Your task to perform on an android device: Open location settings Image 0: 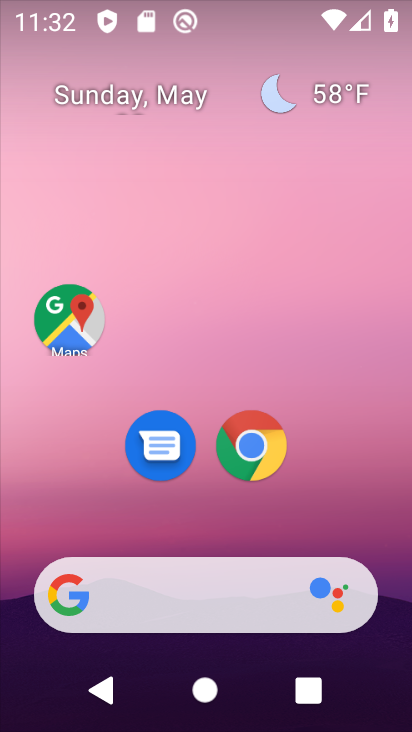
Step 0: drag from (218, 536) to (230, 12)
Your task to perform on an android device: Open location settings Image 1: 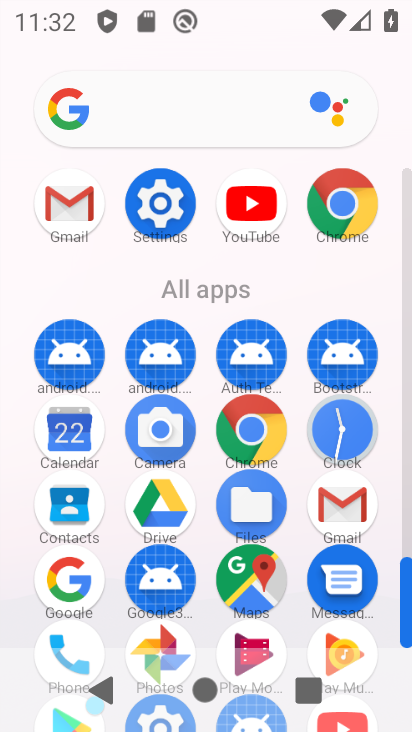
Step 1: click (161, 192)
Your task to perform on an android device: Open location settings Image 2: 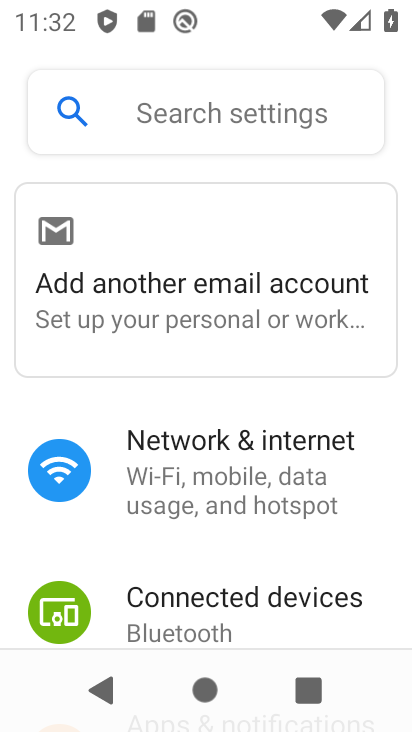
Step 2: drag from (247, 626) to (271, 124)
Your task to perform on an android device: Open location settings Image 3: 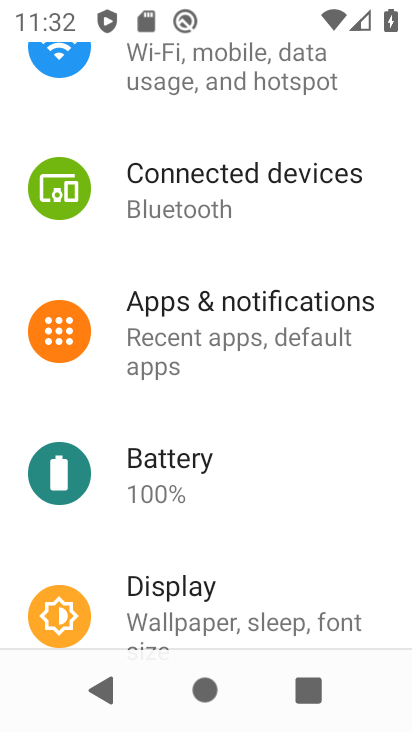
Step 3: drag from (241, 616) to (255, 87)
Your task to perform on an android device: Open location settings Image 4: 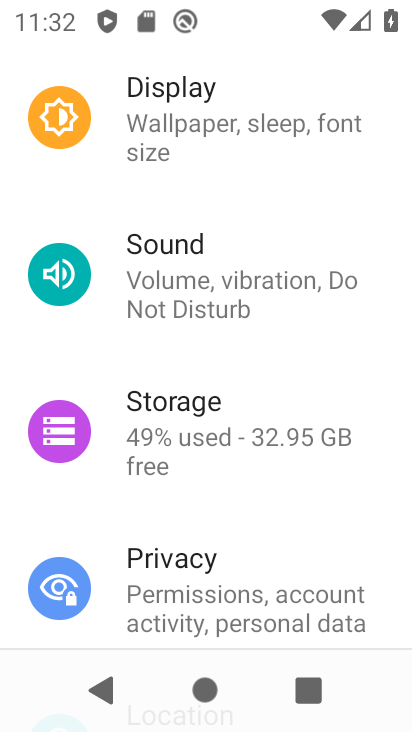
Step 4: drag from (219, 579) to (222, 164)
Your task to perform on an android device: Open location settings Image 5: 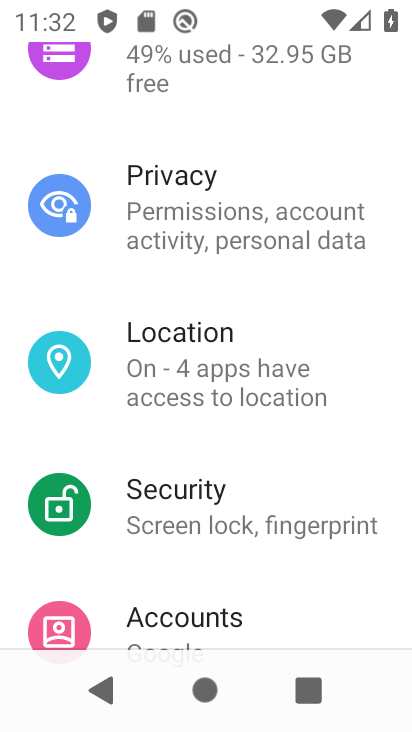
Step 5: click (203, 360)
Your task to perform on an android device: Open location settings Image 6: 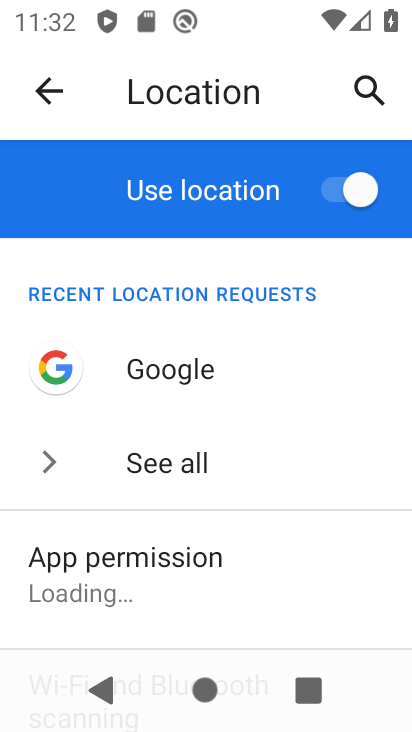
Step 6: drag from (213, 604) to (238, 176)
Your task to perform on an android device: Open location settings Image 7: 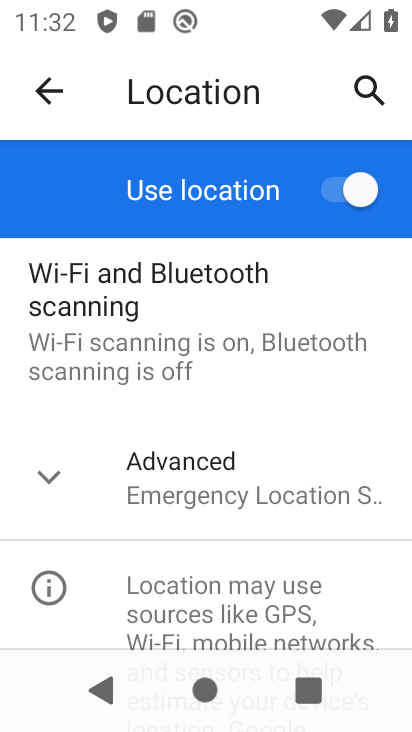
Step 7: click (48, 467)
Your task to perform on an android device: Open location settings Image 8: 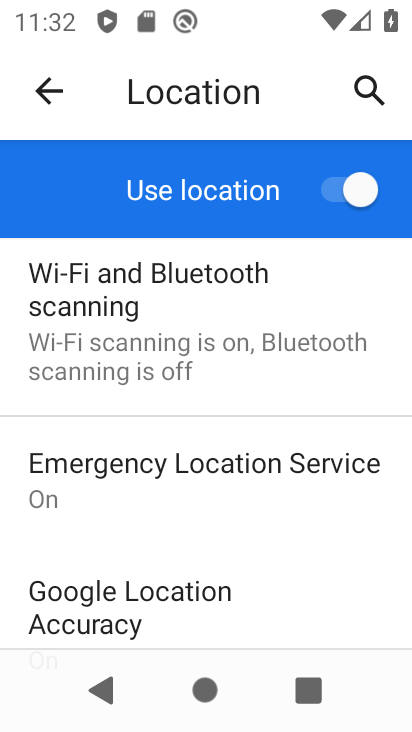
Step 8: task complete